Your task to perform on an android device: clear history in the chrome app Image 0: 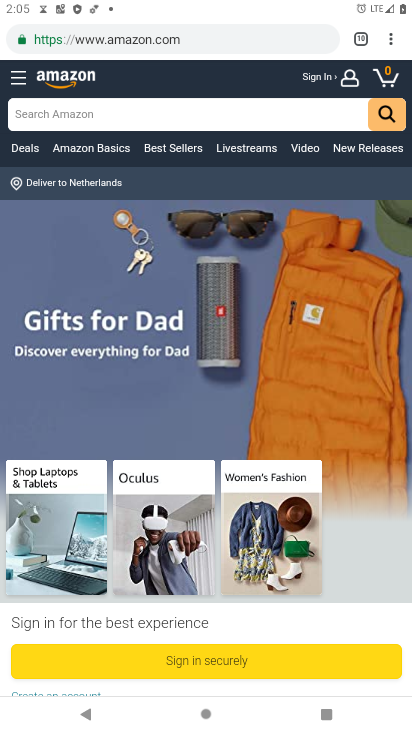
Step 0: click (393, 37)
Your task to perform on an android device: clear history in the chrome app Image 1: 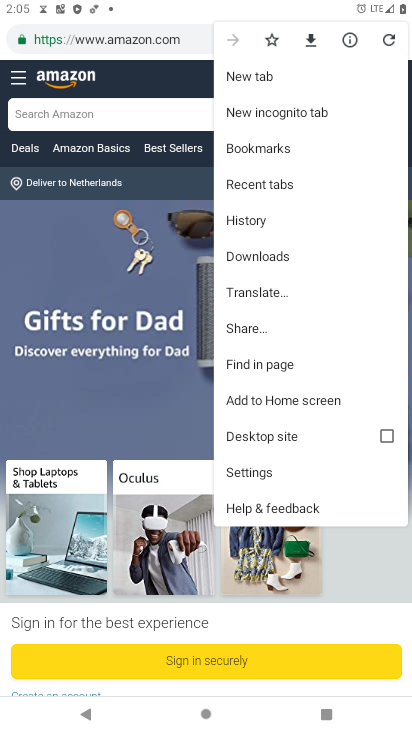
Step 1: click (261, 463)
Your task to perform on an android device: clear history in the chrome app Image 2: 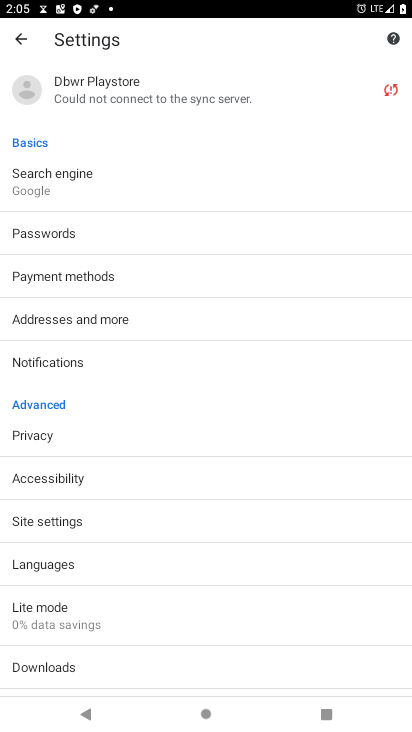
Step 2: drag from (226, 562) to (204, 252)
Your task to perform on an android device: clear history in the chrome app Image 3: 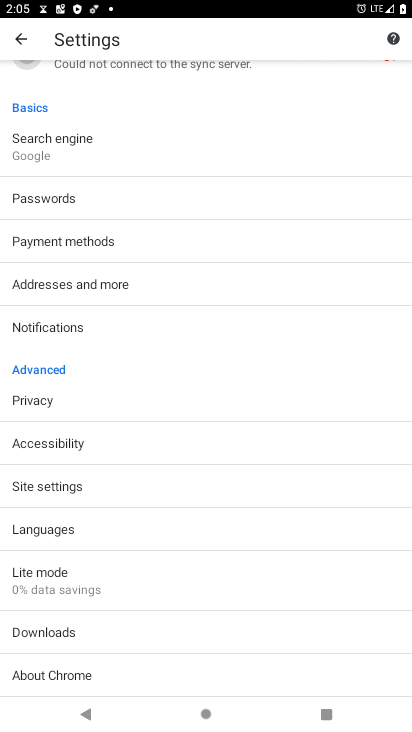
Step 3: click (152, 479)
Your task to perform on an android device: clear history in the chrome app Image 4: 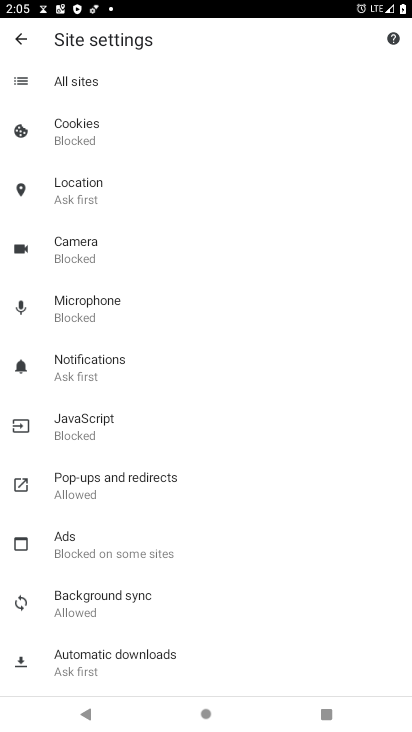
Step 4: drag from (242, 574) to (268, 216)
Your task to perform on an android device: clear history in the chrome app Image 5: 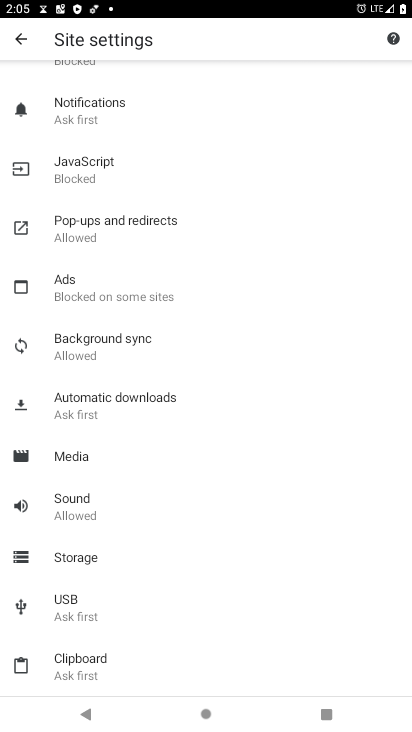
Step 5: drag from (324, 545) to (329, 140)
Your task to perform on an android device: clear history in the chrome app Image 6: 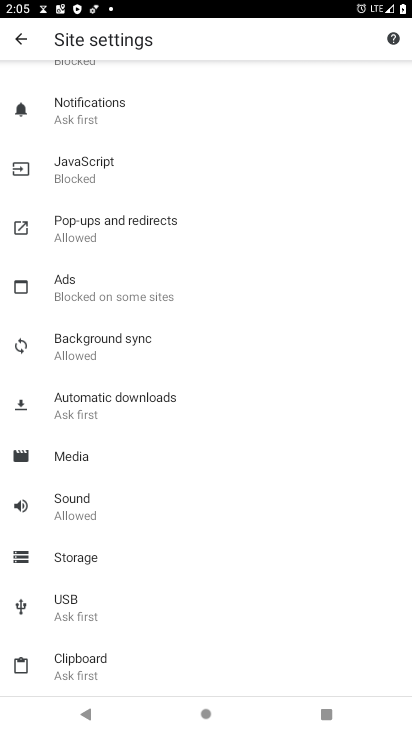
Step 6: drag from (237, 492) to (221, 165)
Your task to perform on an android device: clear history in the chrome app Image 7: 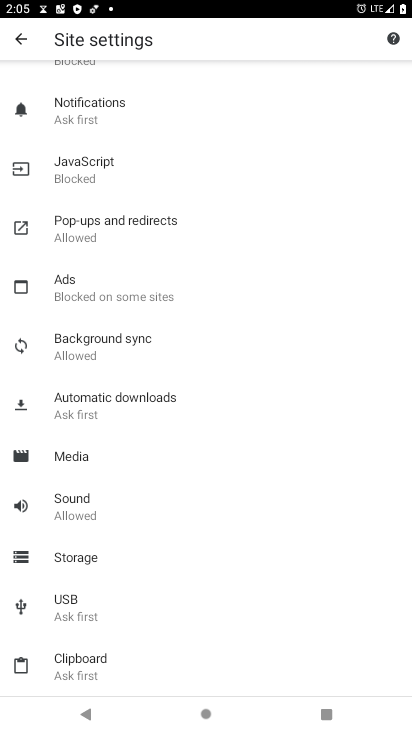
Step 7: drag from (230, 135) to (241, 586)
Your task to perform on an android device: clear history in the chrome app Image 8: 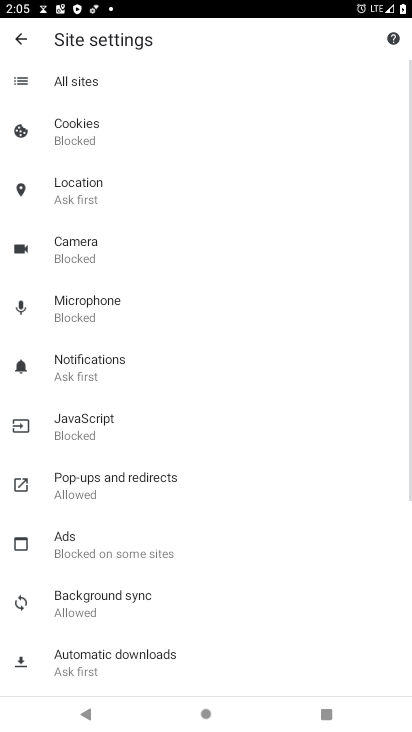
Step 8: press back button
Your task to perform on an android device: clear history in the chrome app Image 9: 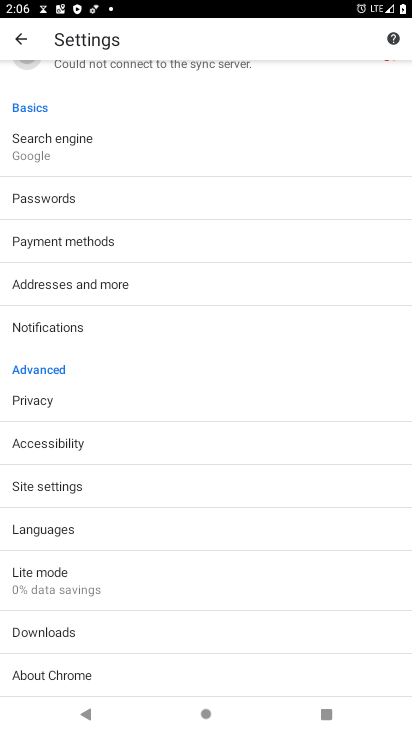
Step 9: drag from (196, 633) to (182, 314)
Your task to perform on an android device: clear history in the chrome app Image 10: 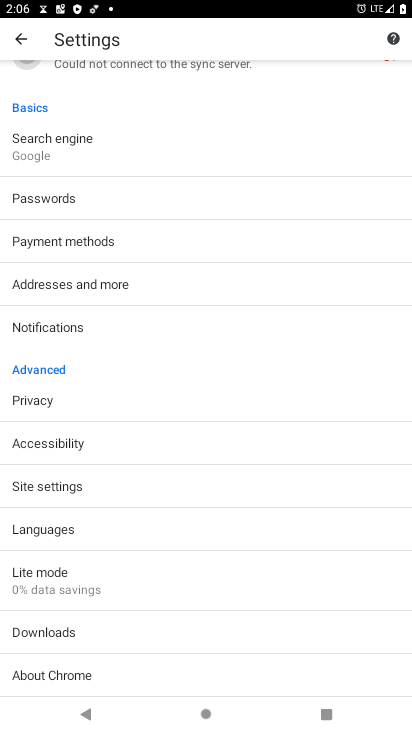
Step 10: click (80, 389)
Your task to perform on an android device: clear history in the chrome app Image 11: 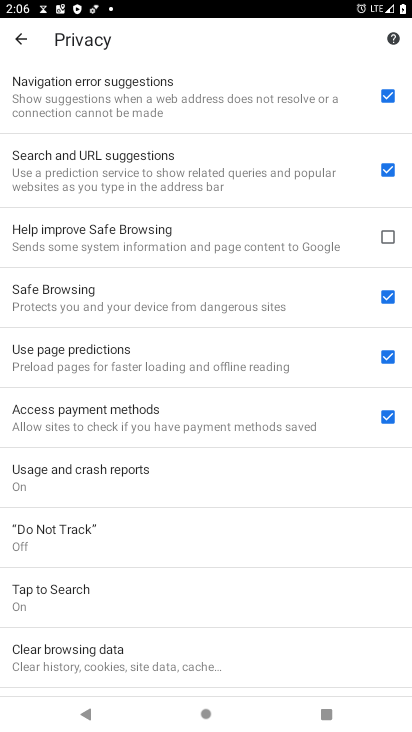
Step 11: drag from (200, 579) to (253, 261)
Your task to perform on an android device: clear history in the chrome app Image 12: 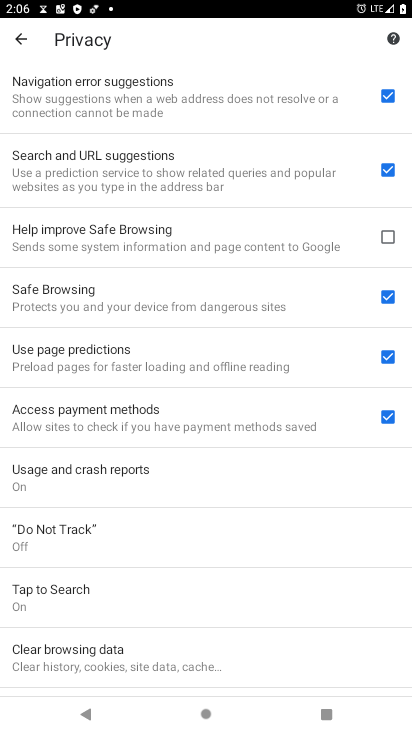
Step 12: click (217, 654)
Your task to perform on an android device: clear history in the chrome app Image 13: 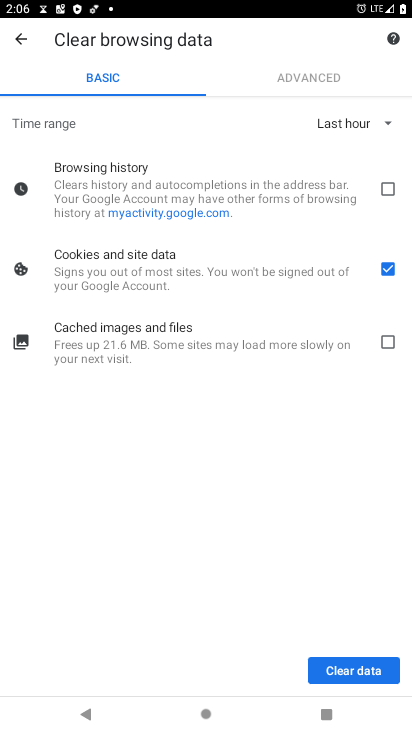
Step 13: click (393, 185)
Your task to perform on an android device: clear history in the chrome app Image 14: 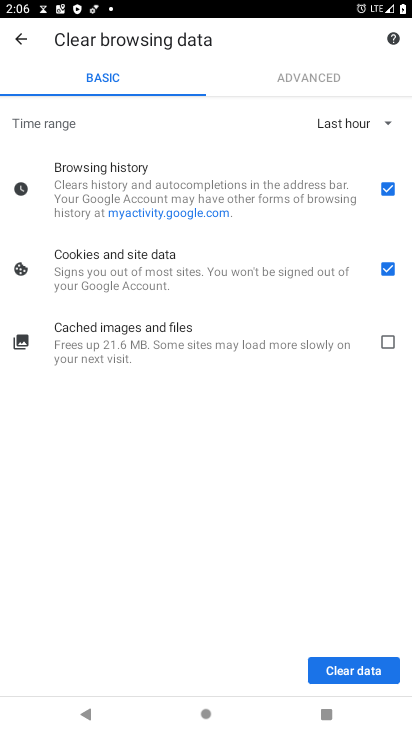
Step 14: click (401, 270)
Your task to perform on an android device: clear history in the chrome app Image 15: 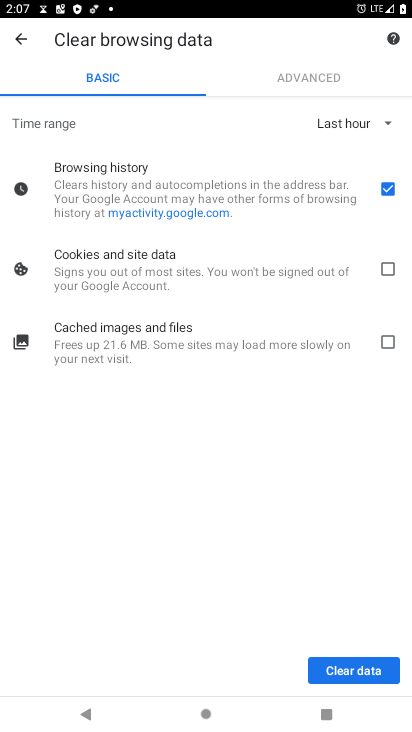
Step 15: click (384, 669)
Your task to perform on an android device: clear history in the chrome app Image 16: 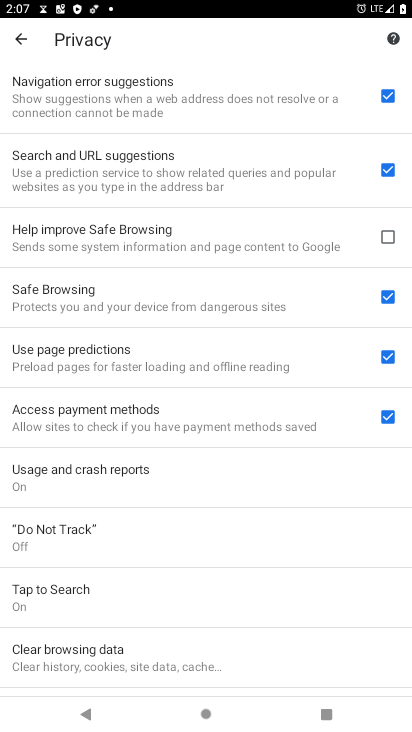
Step 16: task complete